Your task to perform on an android device: open app "Firefox Browser" (install if not already installed) and go to login screen Image 0: 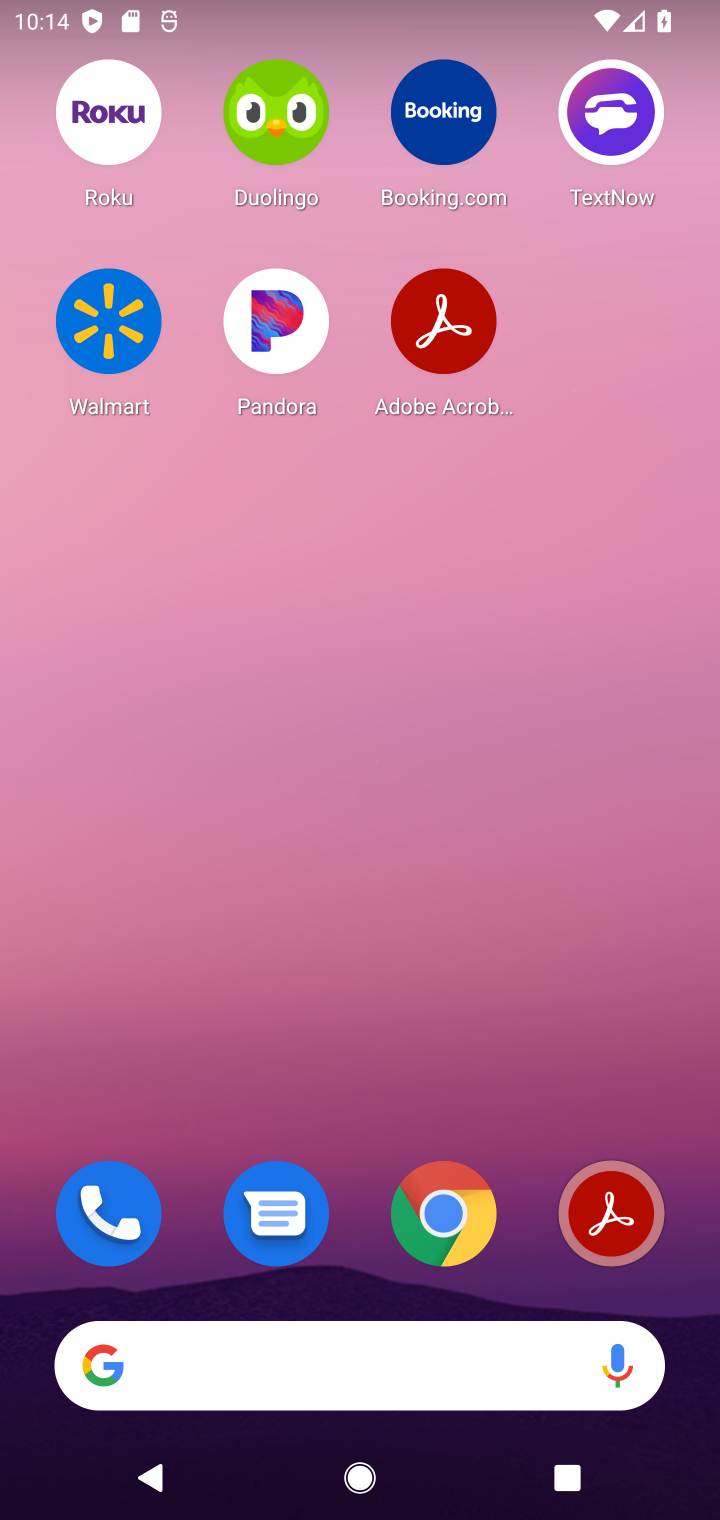
Step 0: drag from (332, 1185) to (401, 431)
Your task to perform on an android device: open app "Firefox Browser" (install if not already installed) and go to login screen Image 1: 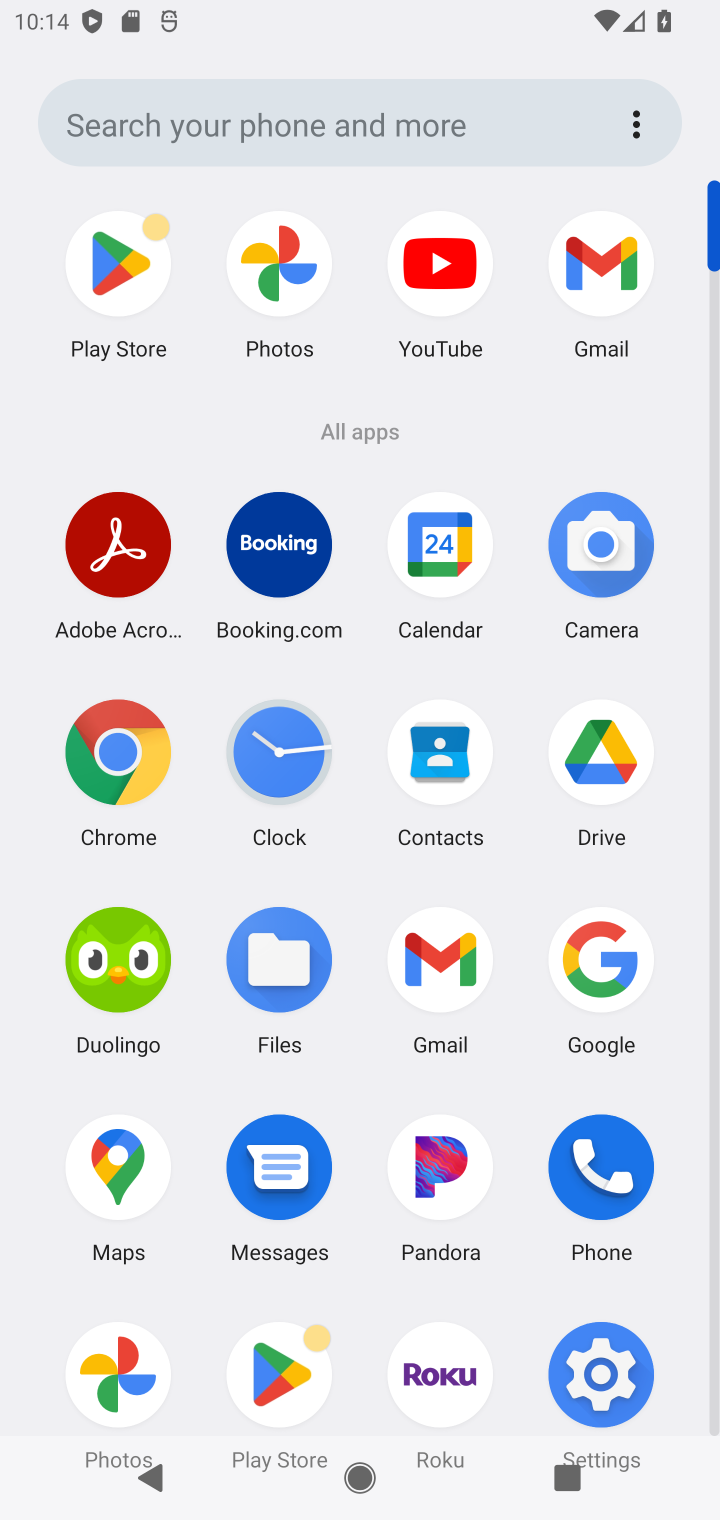
Step 1: click (109, 293)
Your task to perform on an android device: open app "Firefox Browser" (install if not already installed) and go to login screen Image 2: 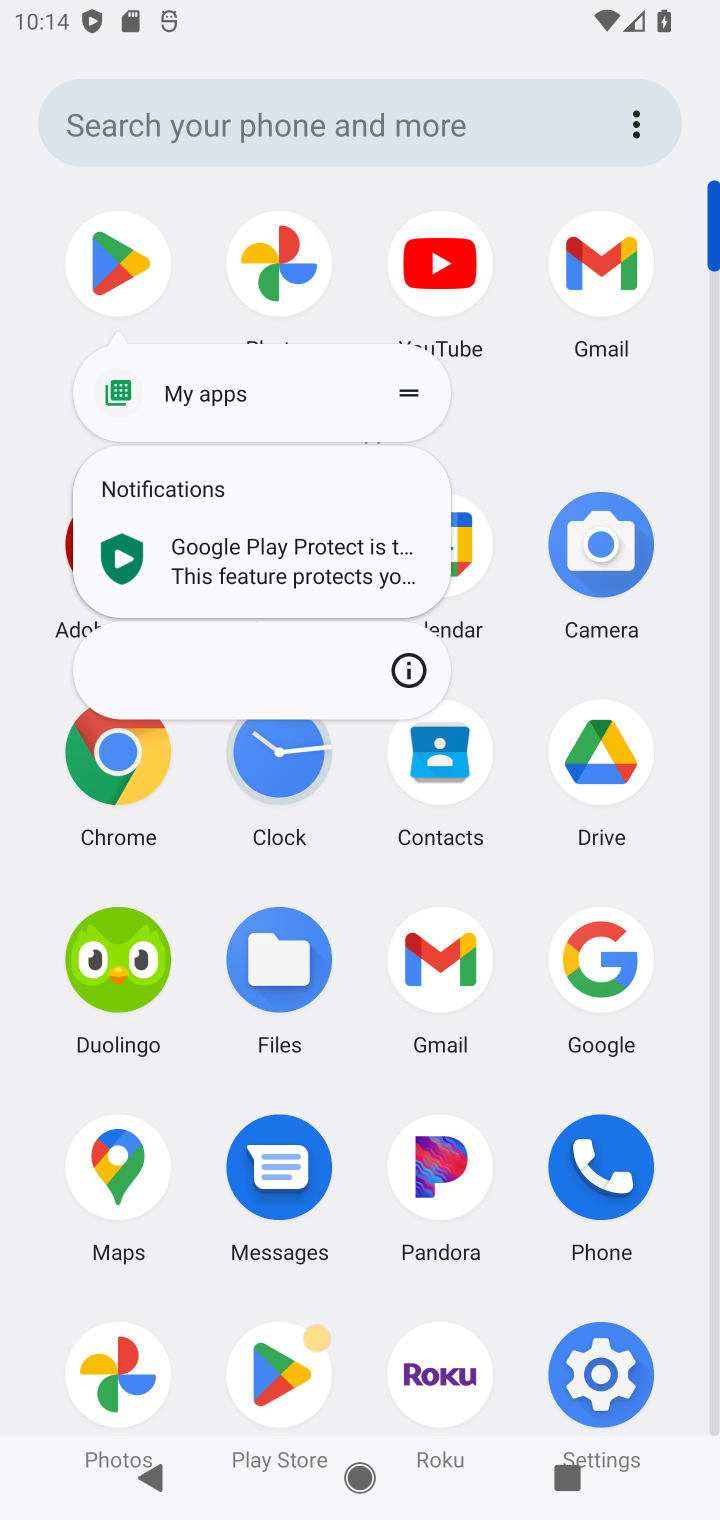
Step 2: click (135, 269)
Your task to perform on an android device: open app "Firefox Browser" (install if not already installed) and go to login screen Image 3: 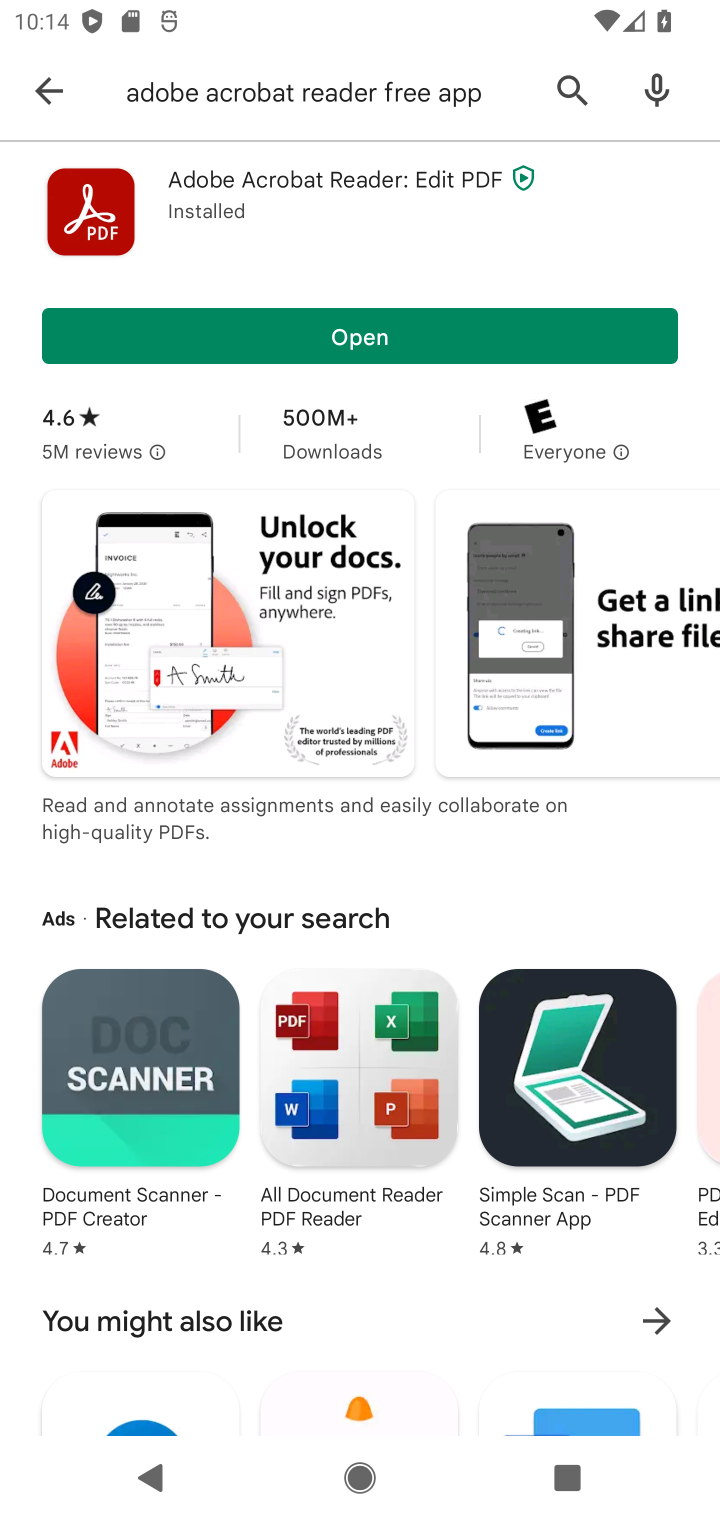
Step 3: click (222, 63)
Your task to perform on an android device: open app "Firefox Browser" (install if not already installed) and go to login screen Image 4: 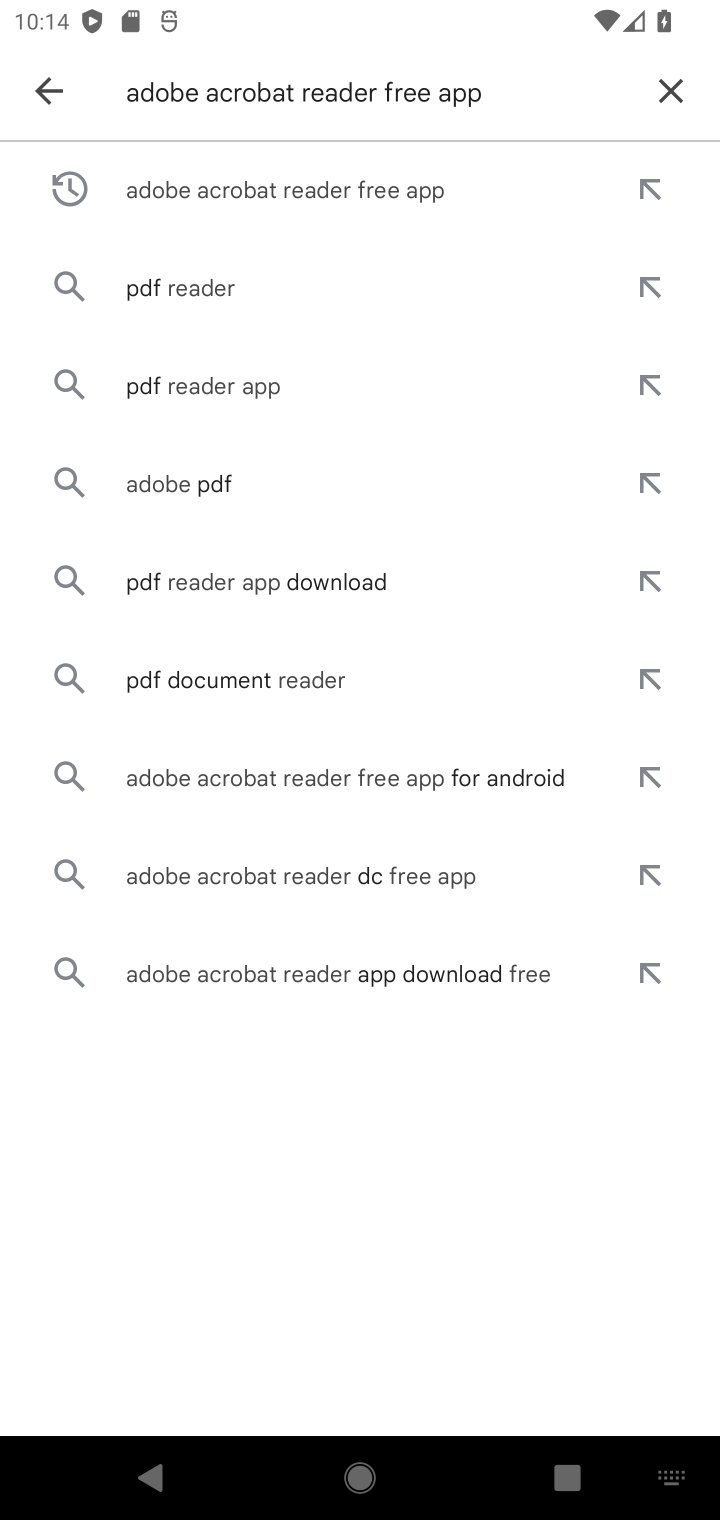
Step 4: click (680, 100)
Your task to perform on an android device: open app "Firefox Browser" (install if not already installed) and go to login screen Image 5: 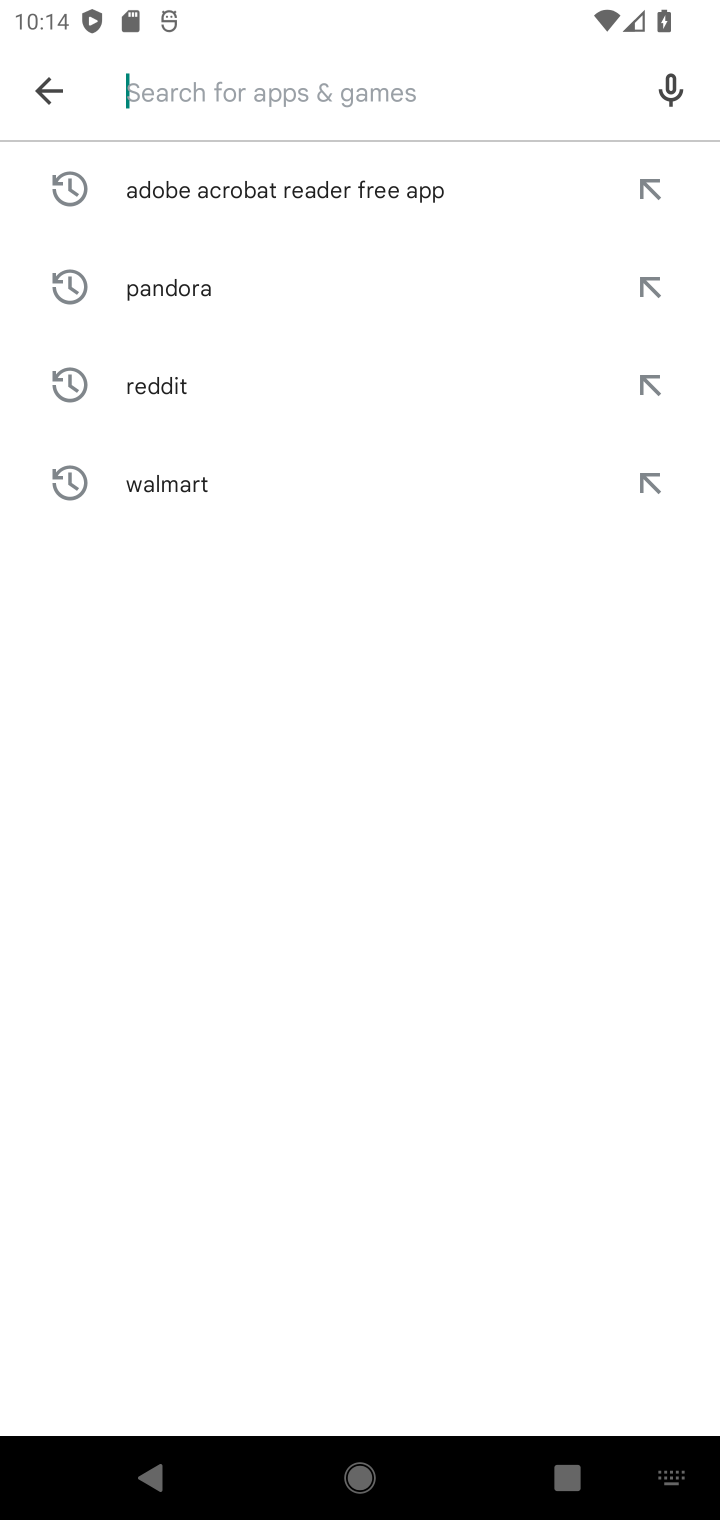
Step 5: type "firefox browser"
Your task to perform on an android device: open app "Firefox Browser" (install if not already installed) and go to login screen Image 6: 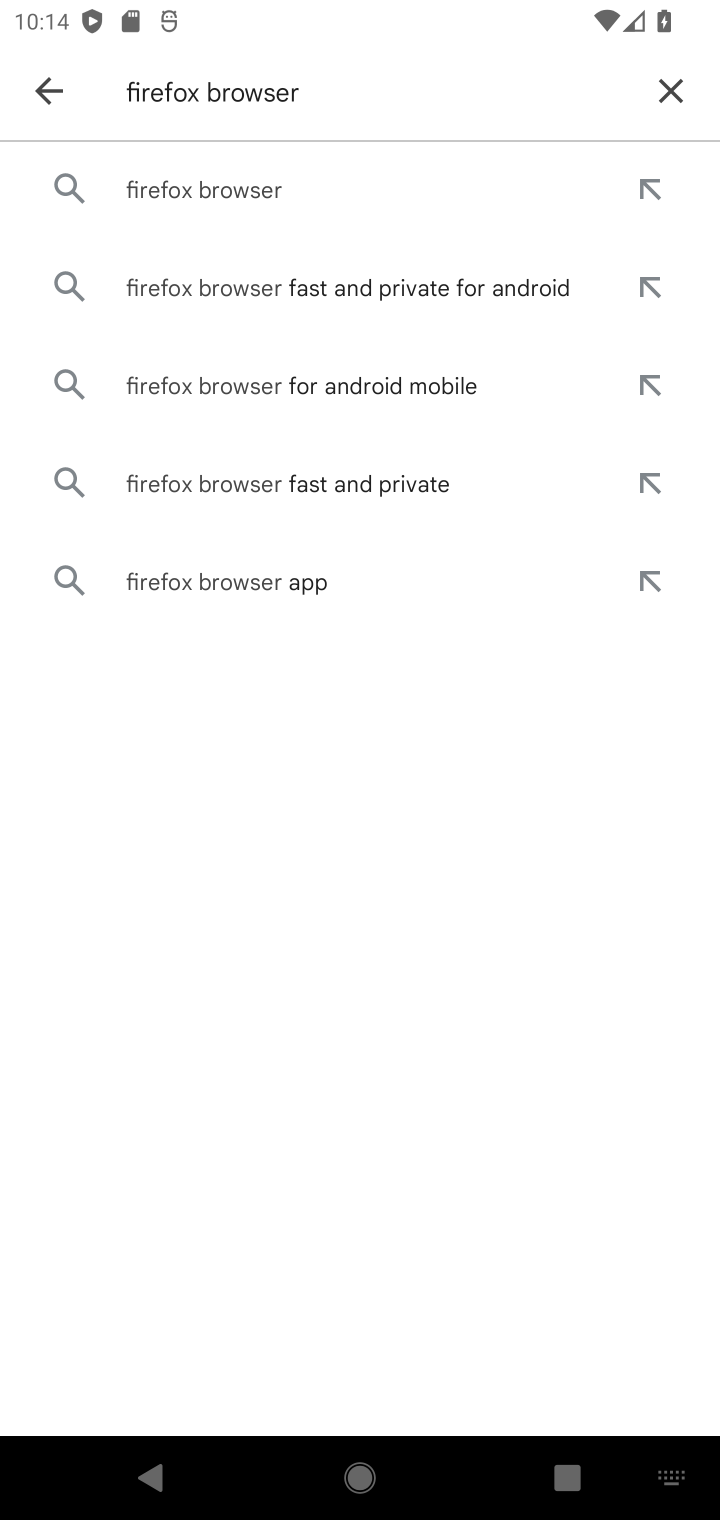
Step 6: click (300, 203)
Your task to perform on an android device: open app "Firefox Browser" (install if not already installed) and go to login screen Image 7: 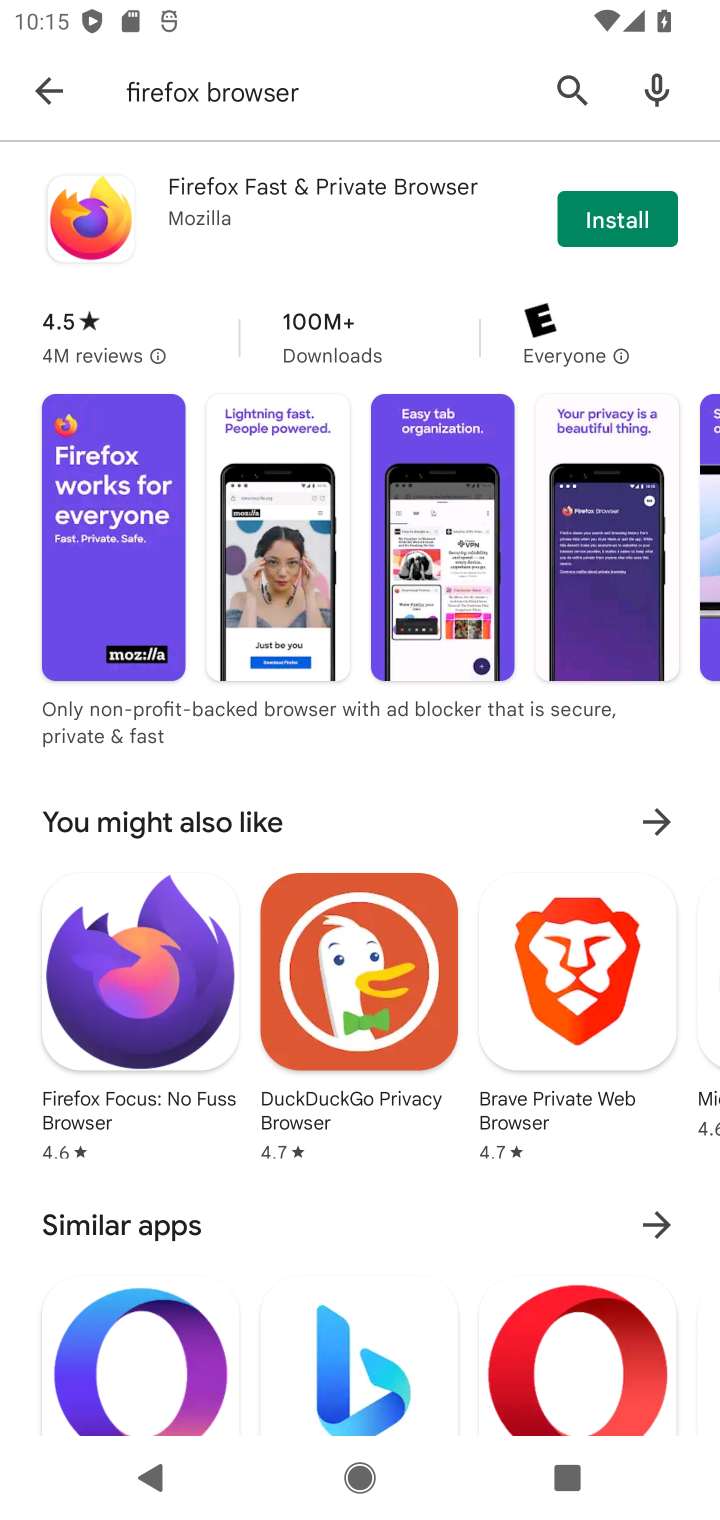
Step 7: click (648, 216)
Your task to perform on an android device: open app "Firefox Browser" (install if not already installed) and go to login screen Image 8: 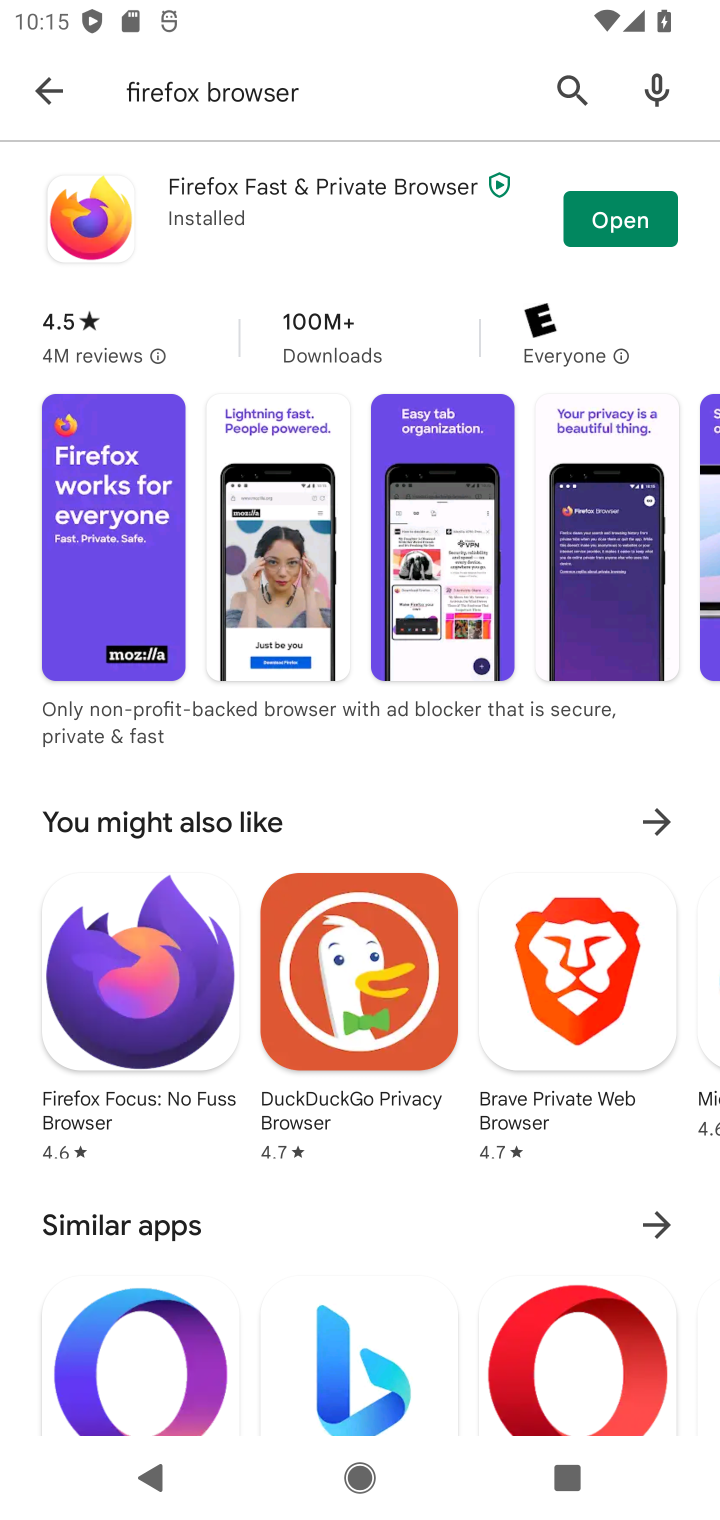
Step 8: click (597, 232)
Your task to perform on an android device: open app "Firefox Browser" (install if not already installed) and go to login screen Image 9: 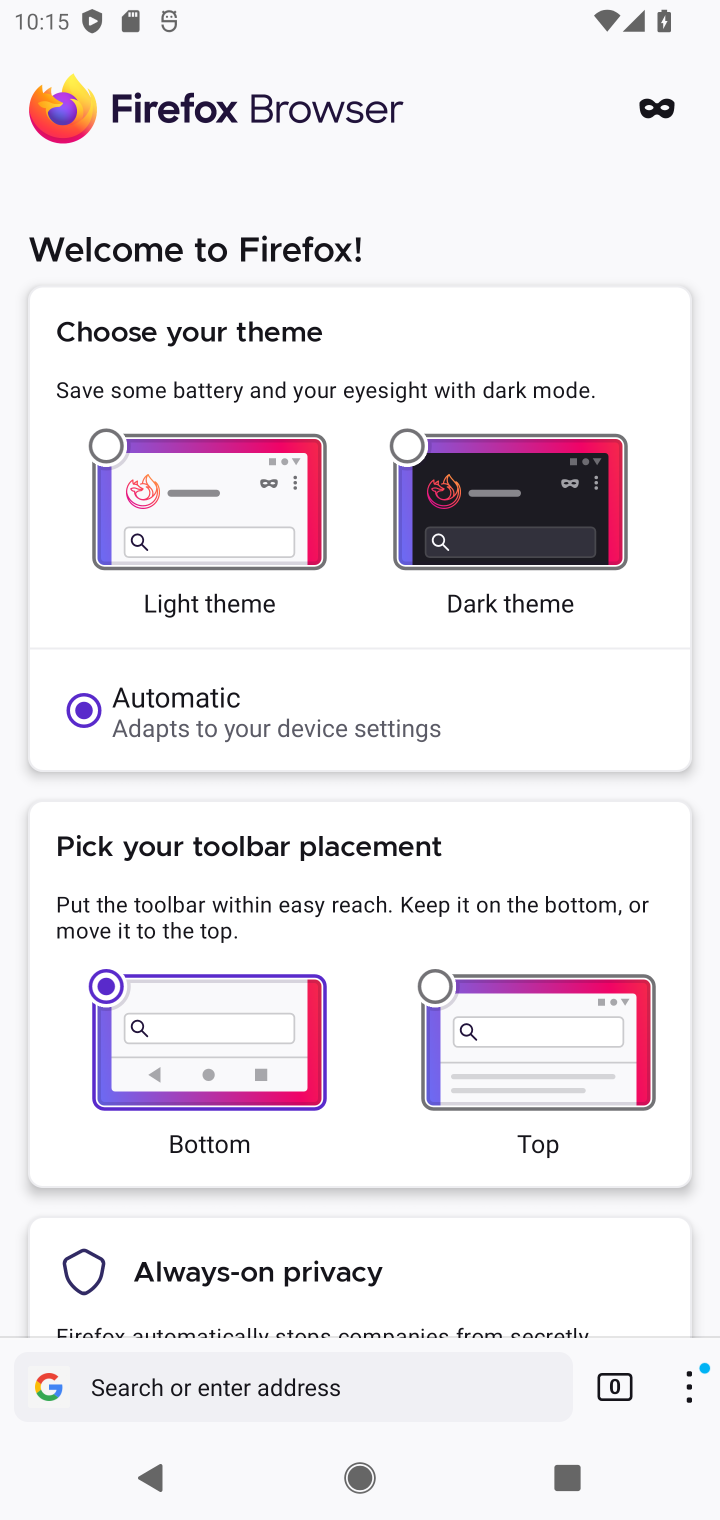
Step 9: drag from (266, 973) to (321, 145)
Your task to perform on an android device: open app "Firefox Browser" (install if not already installed) and go to login screen Image 10: 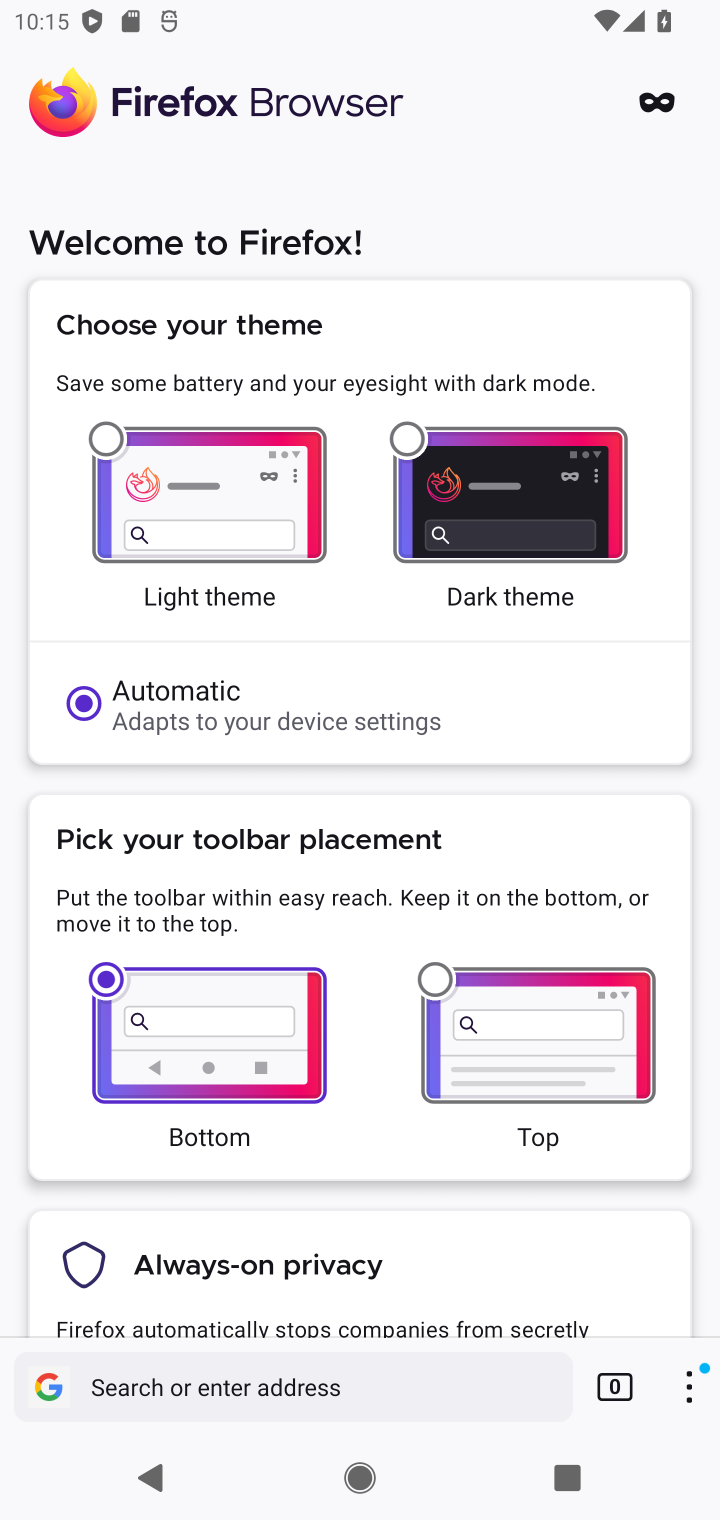
Step 10: drag from (464, 703) to (533, 229)
Your task to perform on an android device: open app "Firefox Browser" (install if not already installed) and go to login screen Image 11: 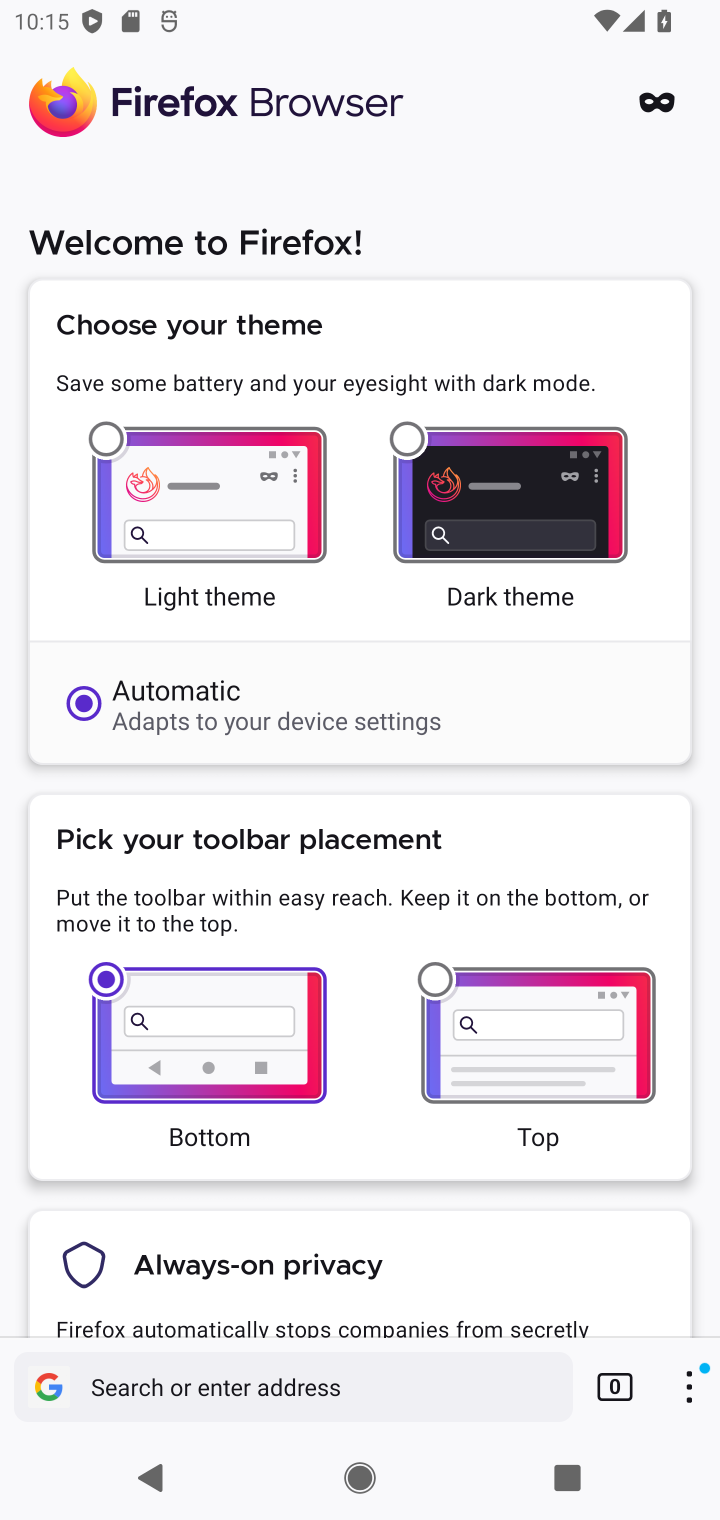
Step 11: drag from (347, 1071) to (352, 90)
Your task to perform on an android device: open app "Firefox Browser" (install if not already installed) and go to login screen Image 12: 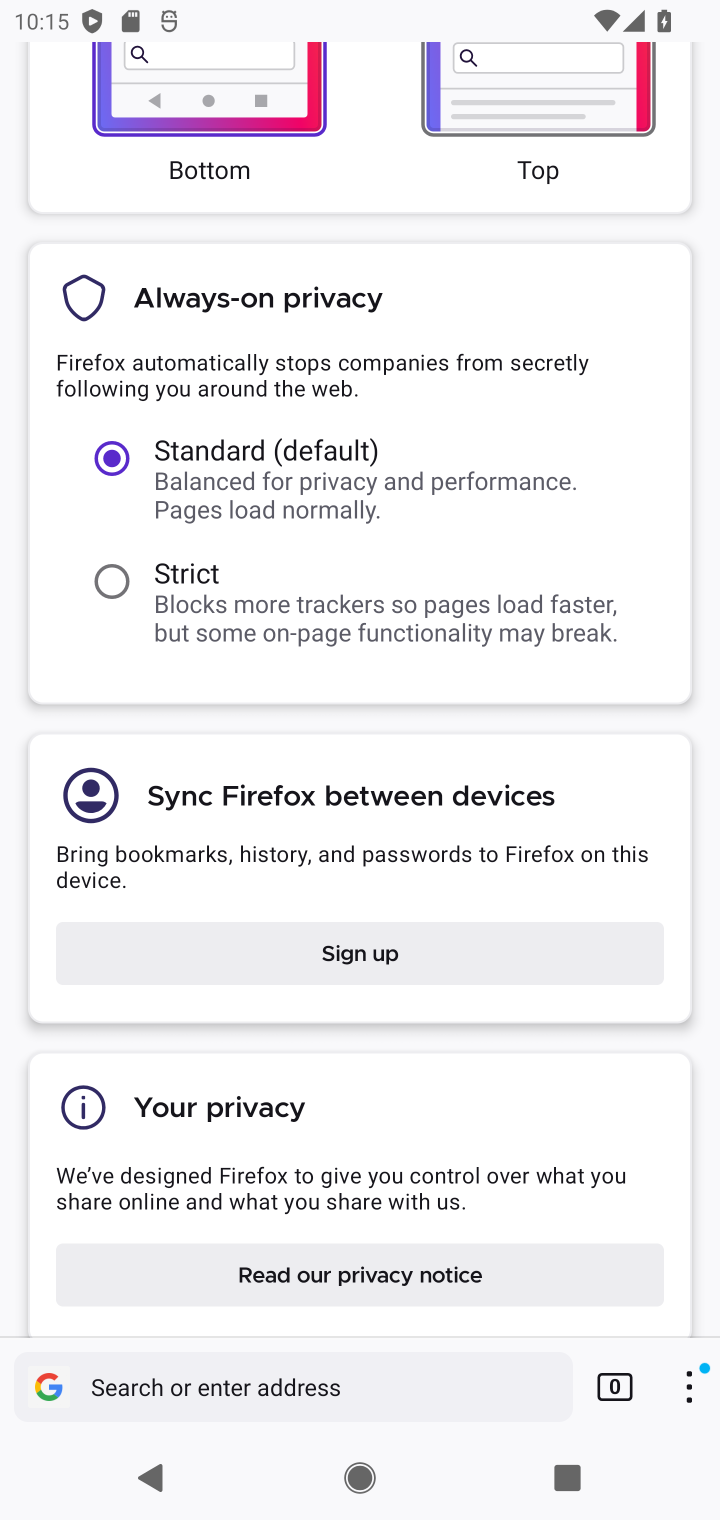
Step 12: click (337, 949)
Your task to perform on an android device: open app "Firefox Browser" (install if not already installed) and go to login screen Image 13: 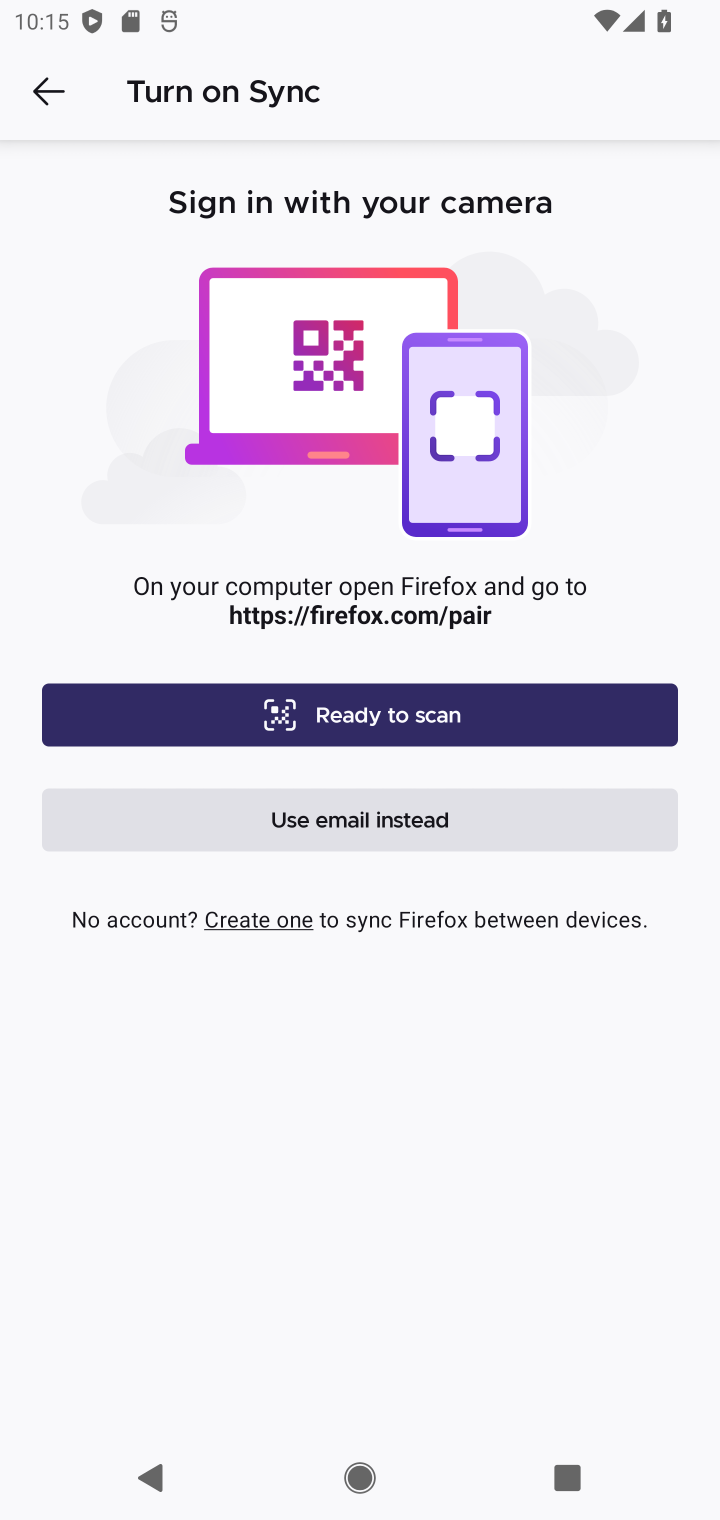
Step 13: click (374, 778)
Your task to perform on an android device: open app "Firefox Browser" (install if not already installed) and go to login screen Image 14: 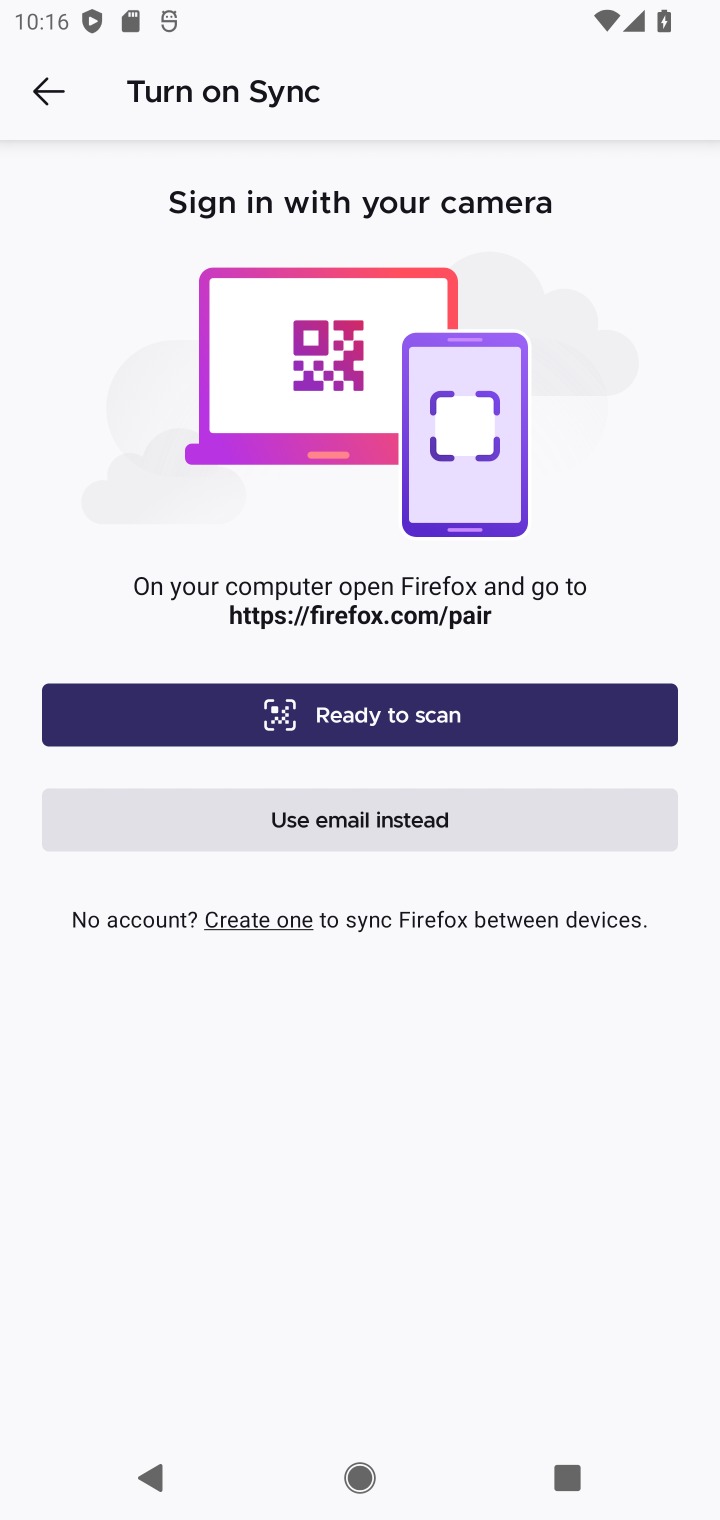
Step 14: click (431, 802)
Your task to perform on an android device: open app "Firefox Browser" (install if not already installed) and go to login screen Image 15: 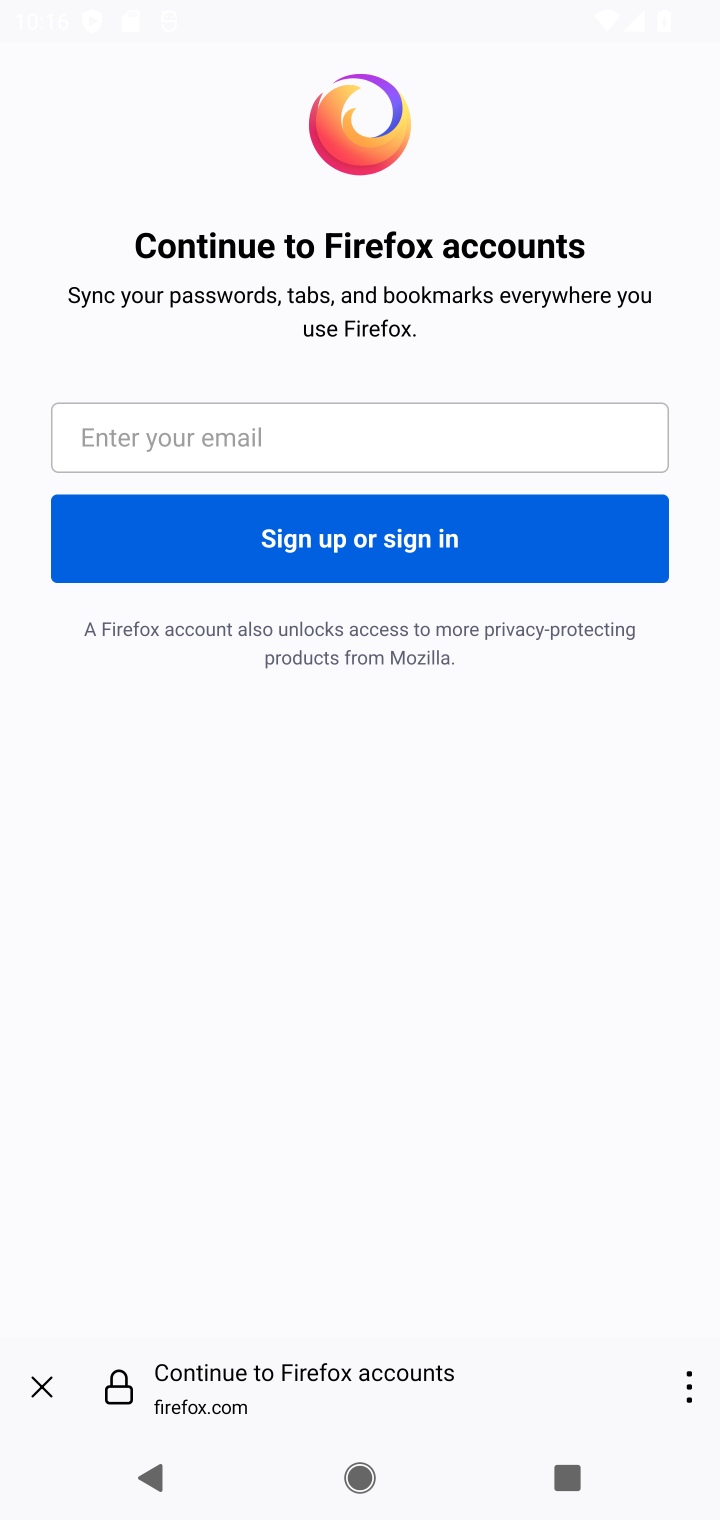
Step 15: task complete